Your task to perform on an android device: Go to Android settings Image 0: 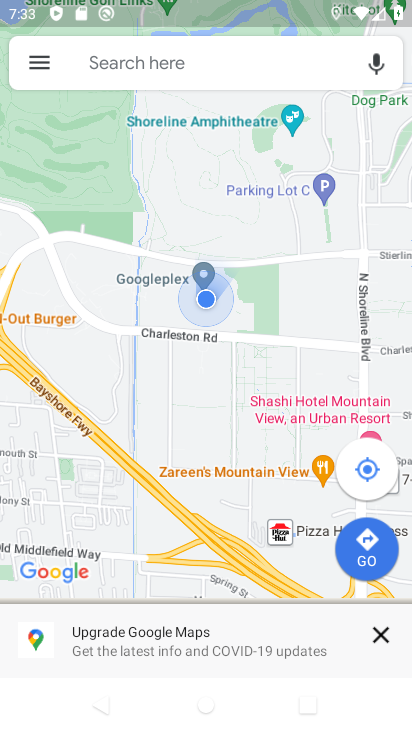
Step 0: press home button
Your task to perform on an android device: Go to Android settings Image 1: 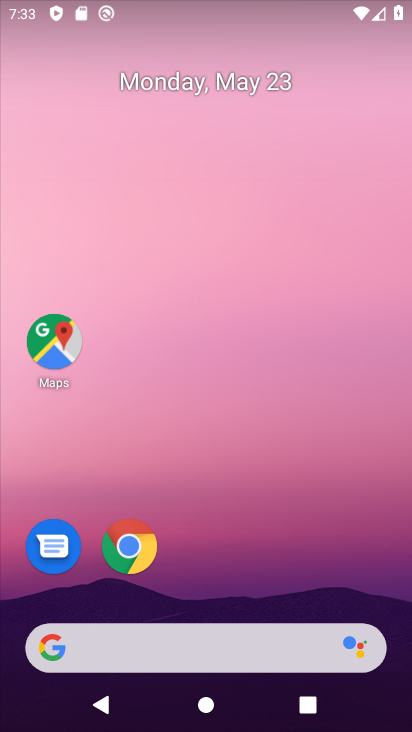
Step 1: drag from (374, 593) to (364, 146)
Your task to perform on an android device: Go to Android settings Image 2: 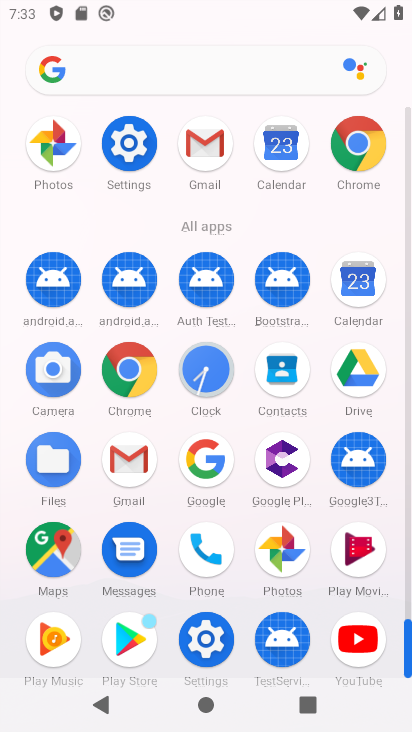
Step 2: click (206, 660)
Your task to perform on an android device: Go to Android settings Image 3: 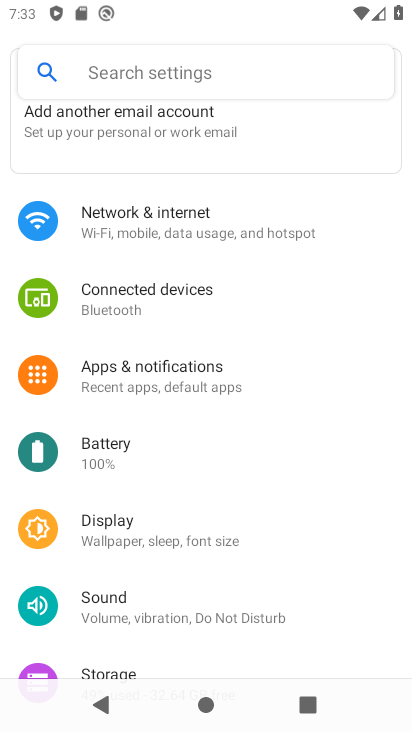
Step 3: drag from (338, 621) to (343, 549)
Your task to perform on an android device: Go to Android settings Image 4: 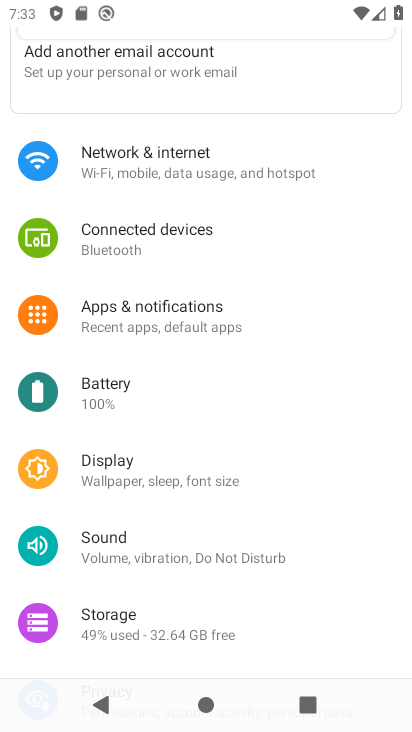
Step 4: drag from (364, 609) to (369, 522)
Your task to perform on an android device: Go to Android settings Image 5: 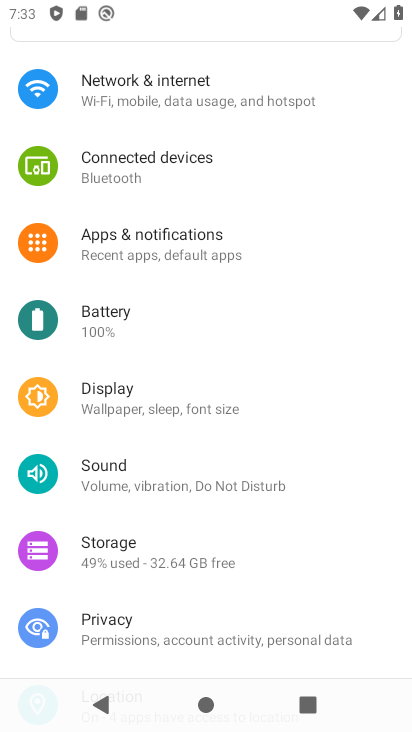
Step 5: drag from (378, 652) to (381, 582)
Your task to perform on an android device: Go to Android settings Image 6: 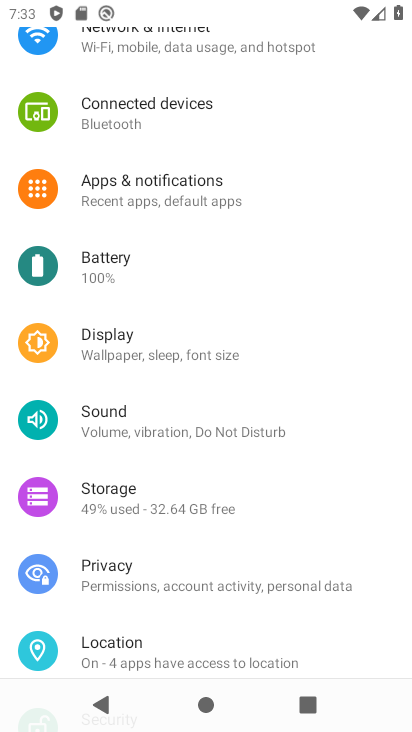
Step 6: drag from (366, 641) to (372, 554)
Your task to perform on an android device: Go to Android settings Image 7: 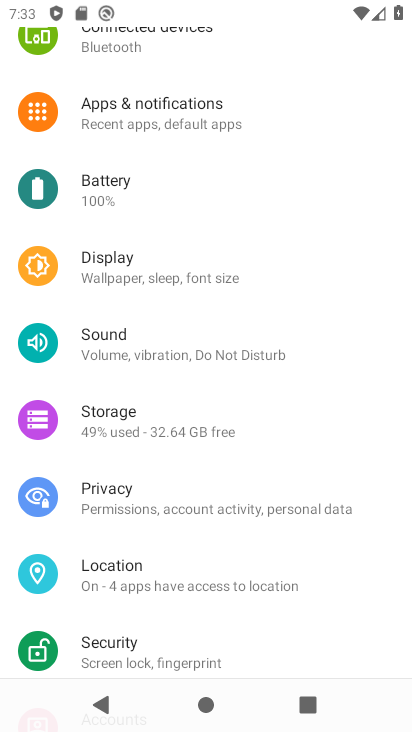
Step 7: drag from (363, 630) to (364, 555)
Your task to perform on an android device: Go to Android settings Image 8: 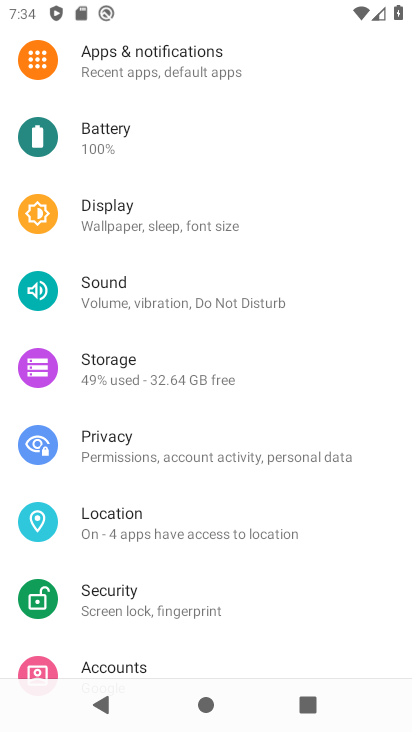
Step 8: drag from (365, 637) to (367, 542)
Your task to perform on an android device: Go to Android settings Image 9: 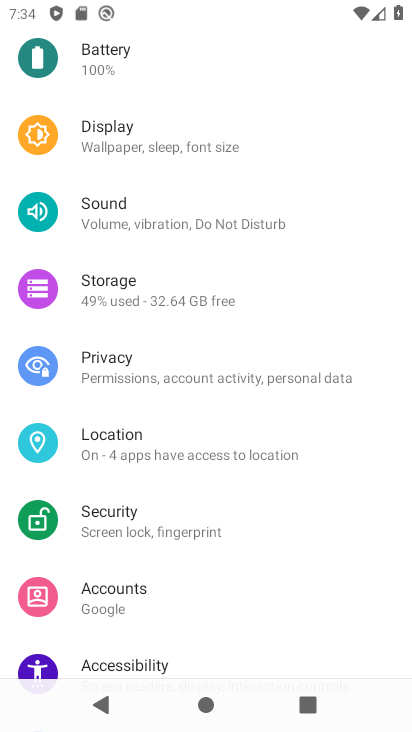
Step 9: drag from (374, 625) to (373, 548)
Your task to perform on an android device: Go to Android settings Image 10: 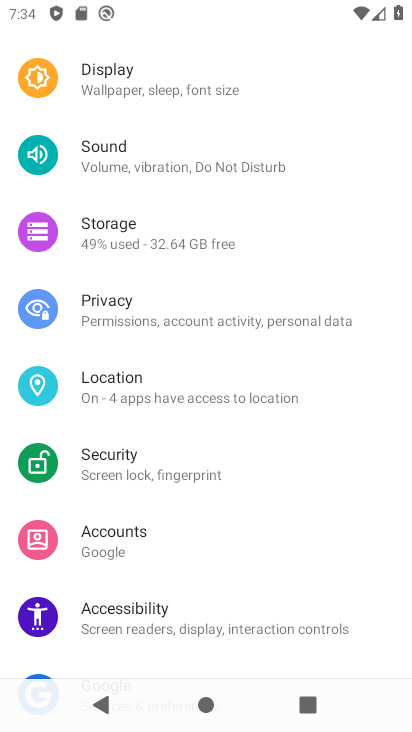
Step 10: drag from (372, 613) to (357, 530)
Your task to perform on an android device: Go to Android settings Image 11: 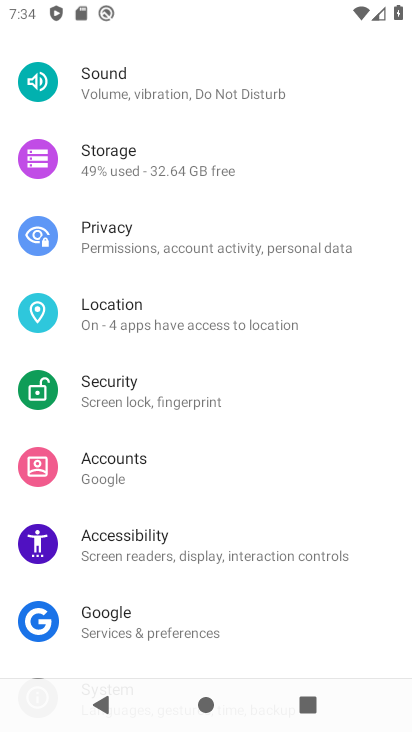
Step 11: drag from (348, 622) to (337, 542)
Your task to perform on an android device: Go to Android settings Image 12: 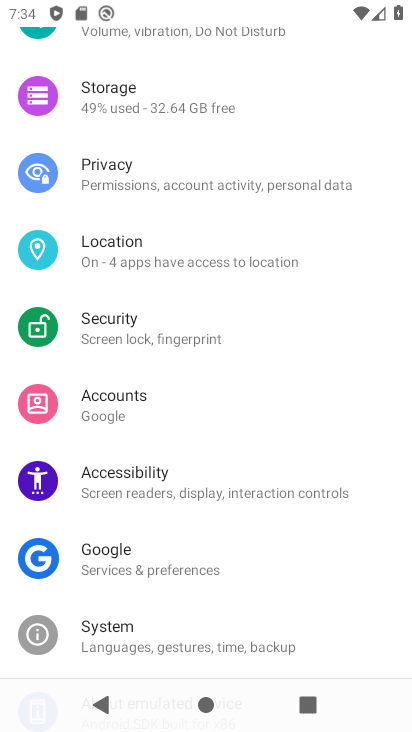
Step 12: click (301, 650)
Your task to perform on an android device: Go to Android settings Image 13: 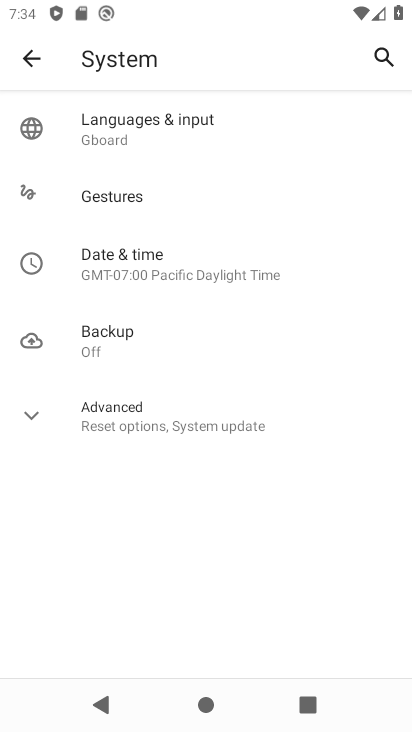
Step 13: click (263, 434)
Your task to perform on an android device: Go to Android settings Image 14: 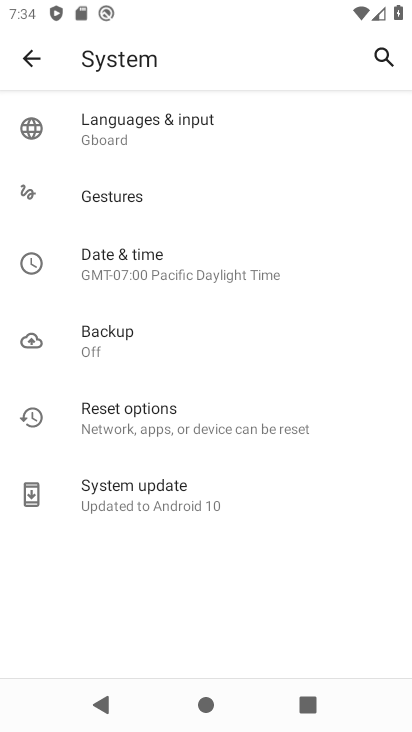
Step 14: task complete